Your task to perform on an android device: check out phone information Image 0: 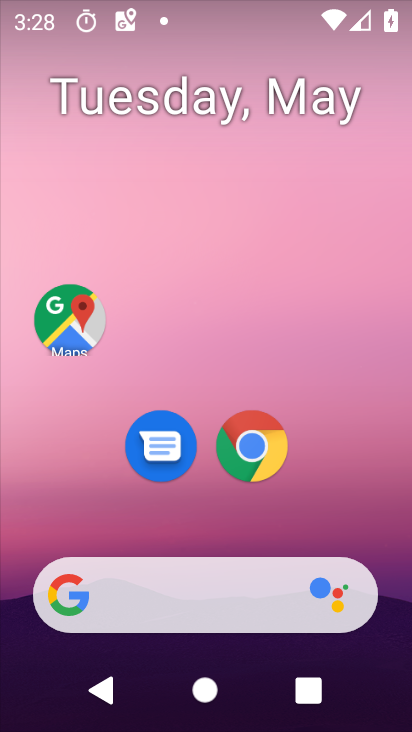
Step 0: drag from (218, 725) to (221, 137)
Your task to perform on an android device: check out phone information Image 1: 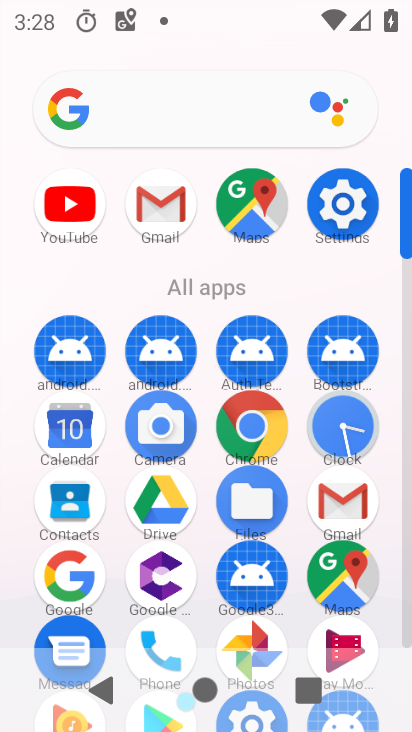
Step 1: click (351, 206)
Your task to perform on an android device: check out phone information Image 2: 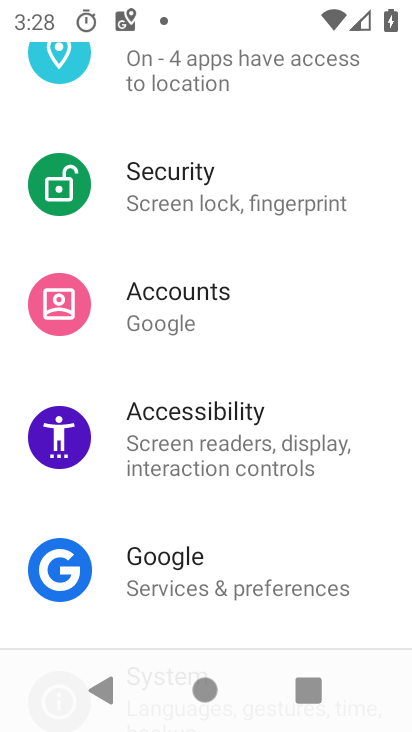
Step 2: drag from (240, 586) to (242, 246)
Your task to perform on an android device: check out phone information Image 3: 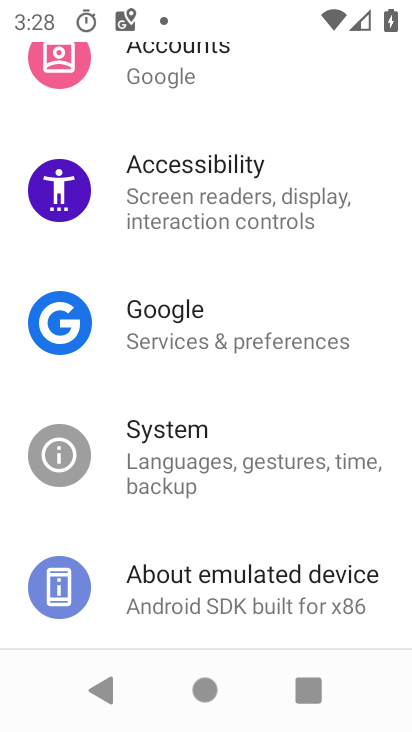
Step 3: click (212, 595)
Your task to perform on an android device: check out phone information Image 4: 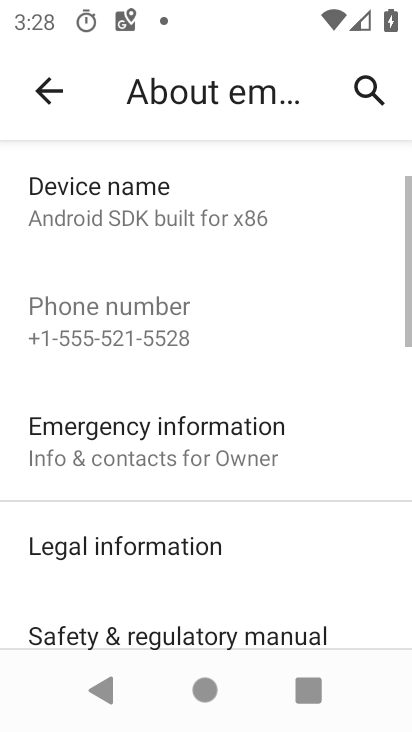
Step 4: task complete